Your task to perform on an android device: install app "Venmo" Image 0: 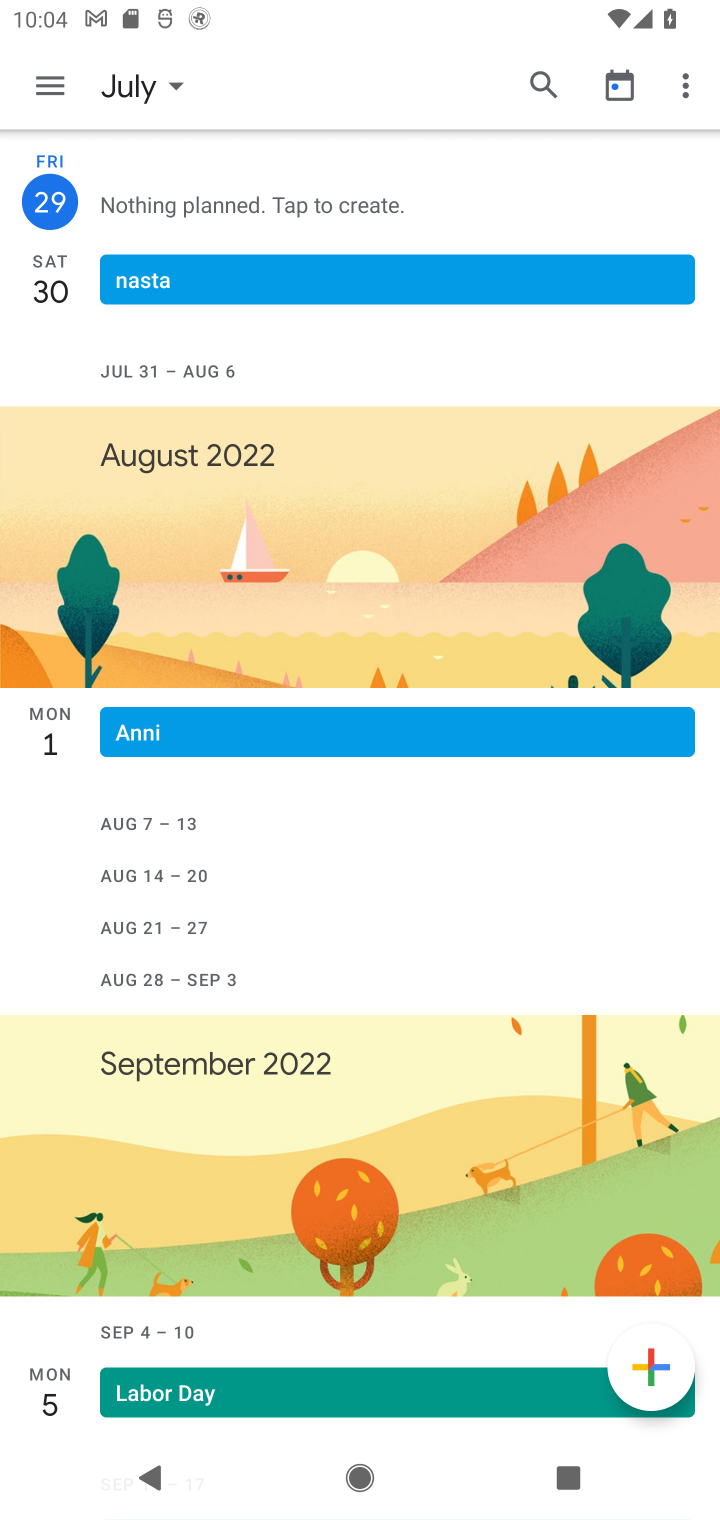
Step 0: press home button
Your task to perform on an android device: install app "Venmo" Image 1: 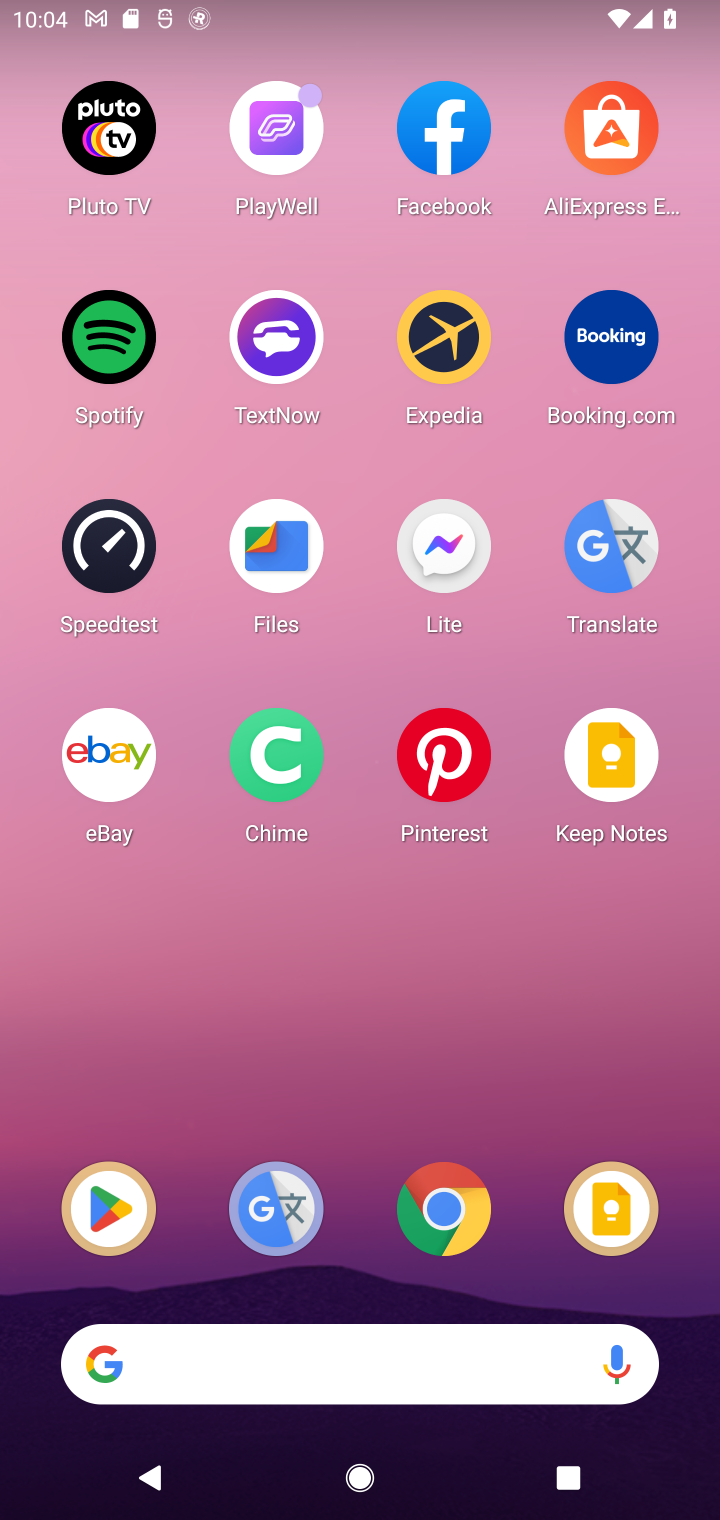
Step 1: drag from (297, 1363) to (458, 485)
Your task to perform on an android device: install app "Venmo" Image 2: 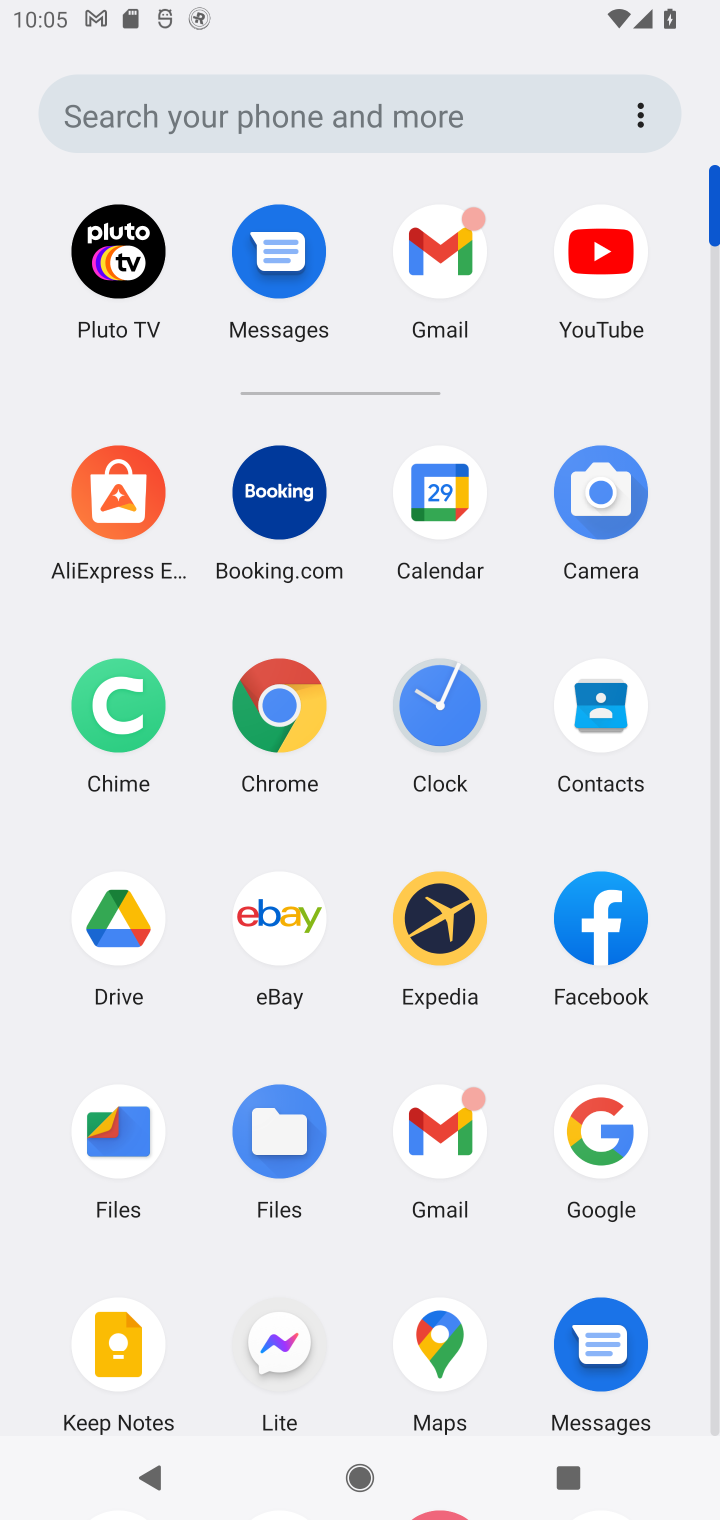
Step 2: drag from (335, 1397) to (364, 679)
Your task to perform on an android device: install app "Venmo" Image 3: 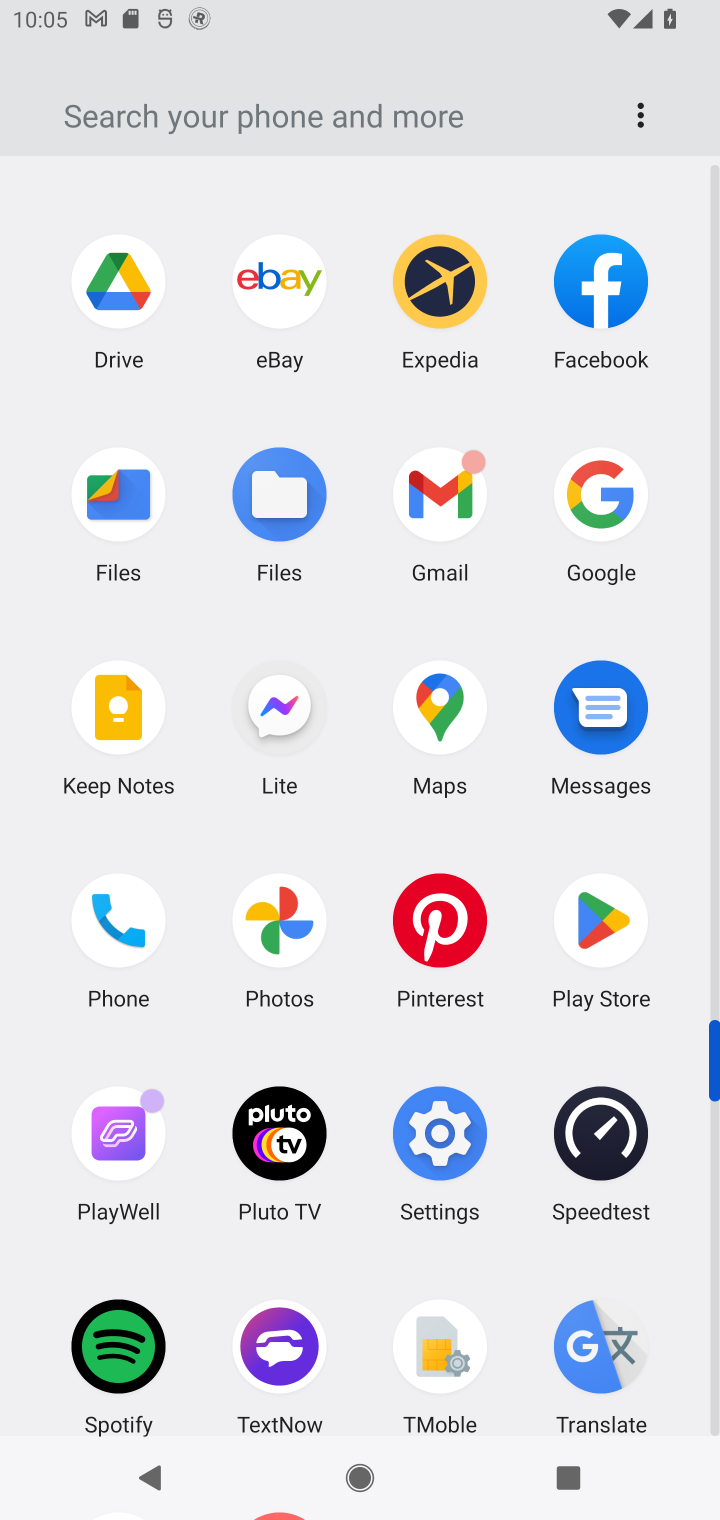
Step 3: click (601, 929)
Your task to perform on an android device: install app "Venmo" Image 4: 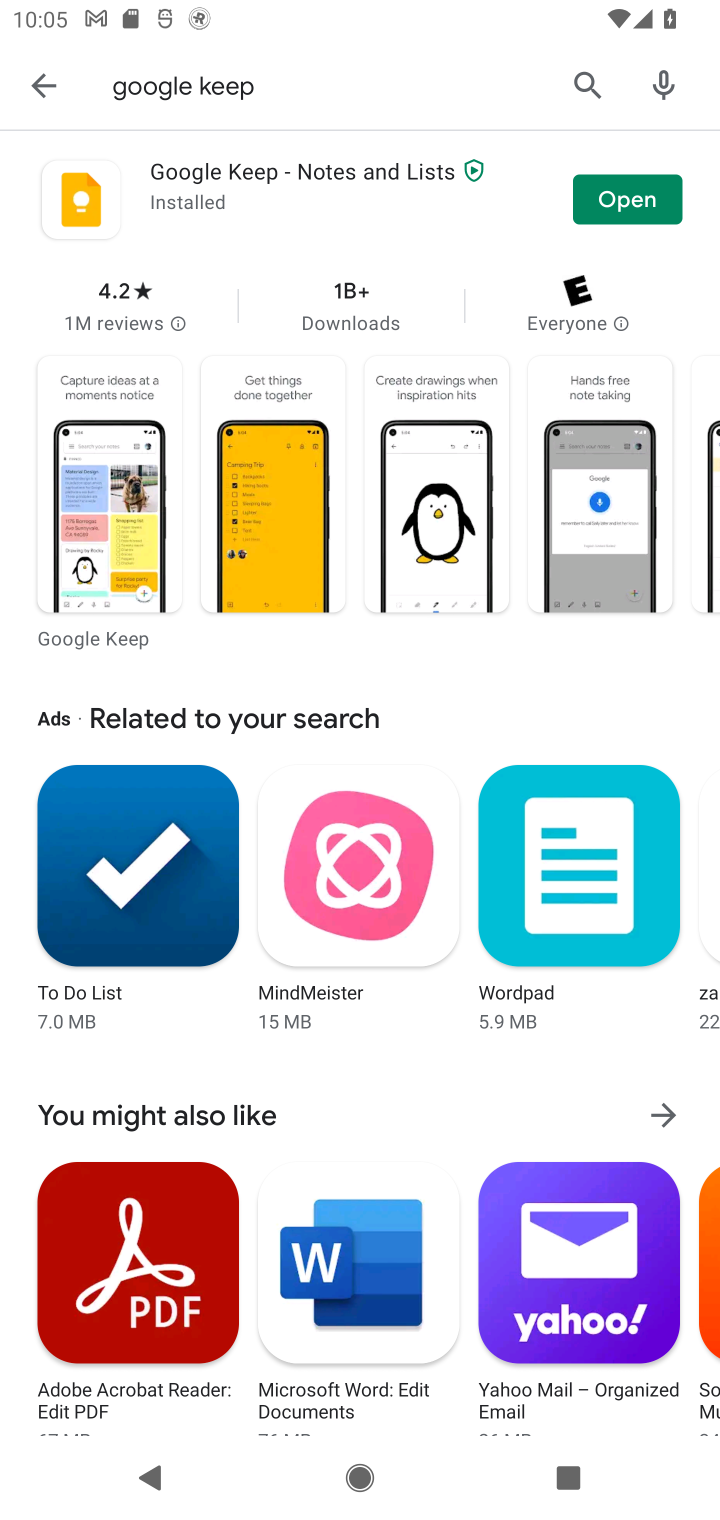
Step 4: click (583, 83)
Your task to perform on an android device: install app "Venmo" Image 5: 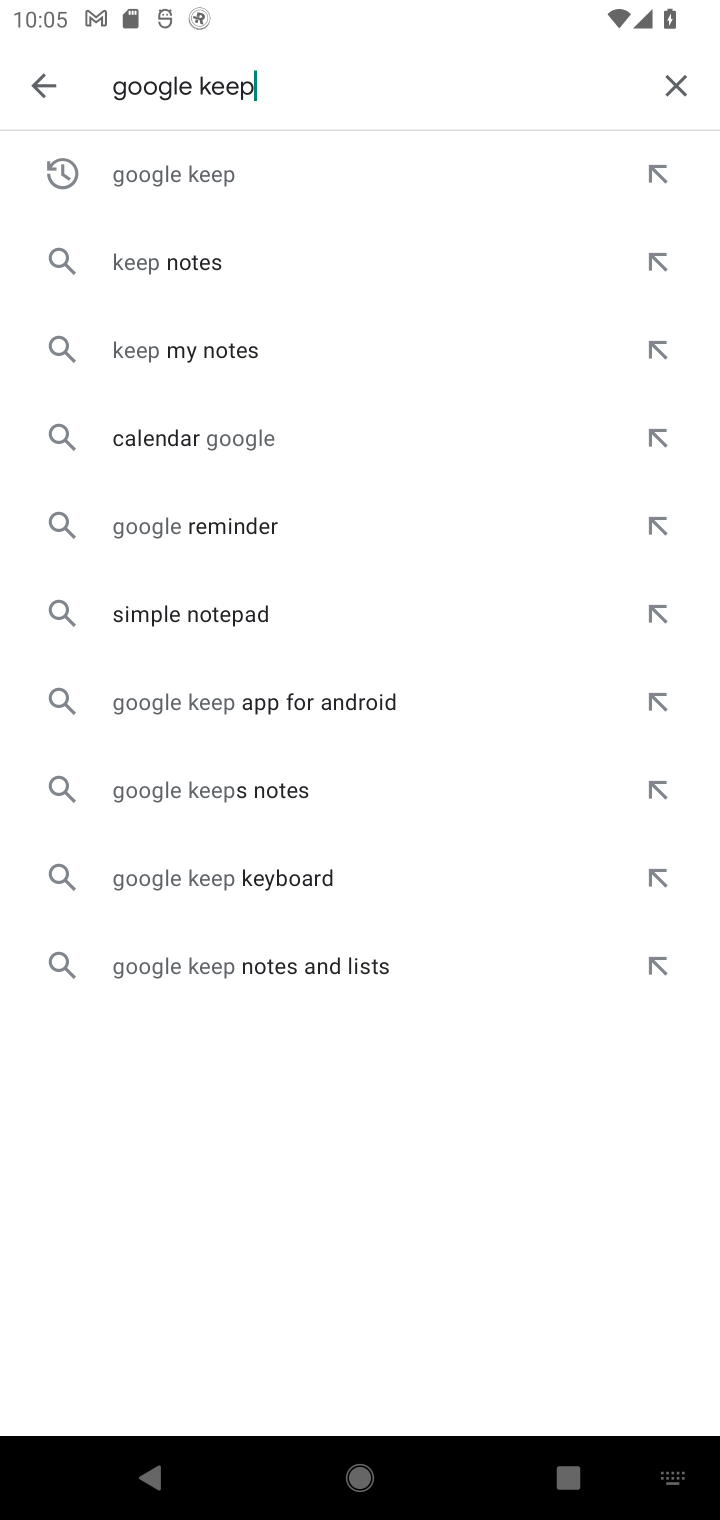
Step 5: click (676, 85)
Your task to perform on an android device: install app "Venmo" Image 6: 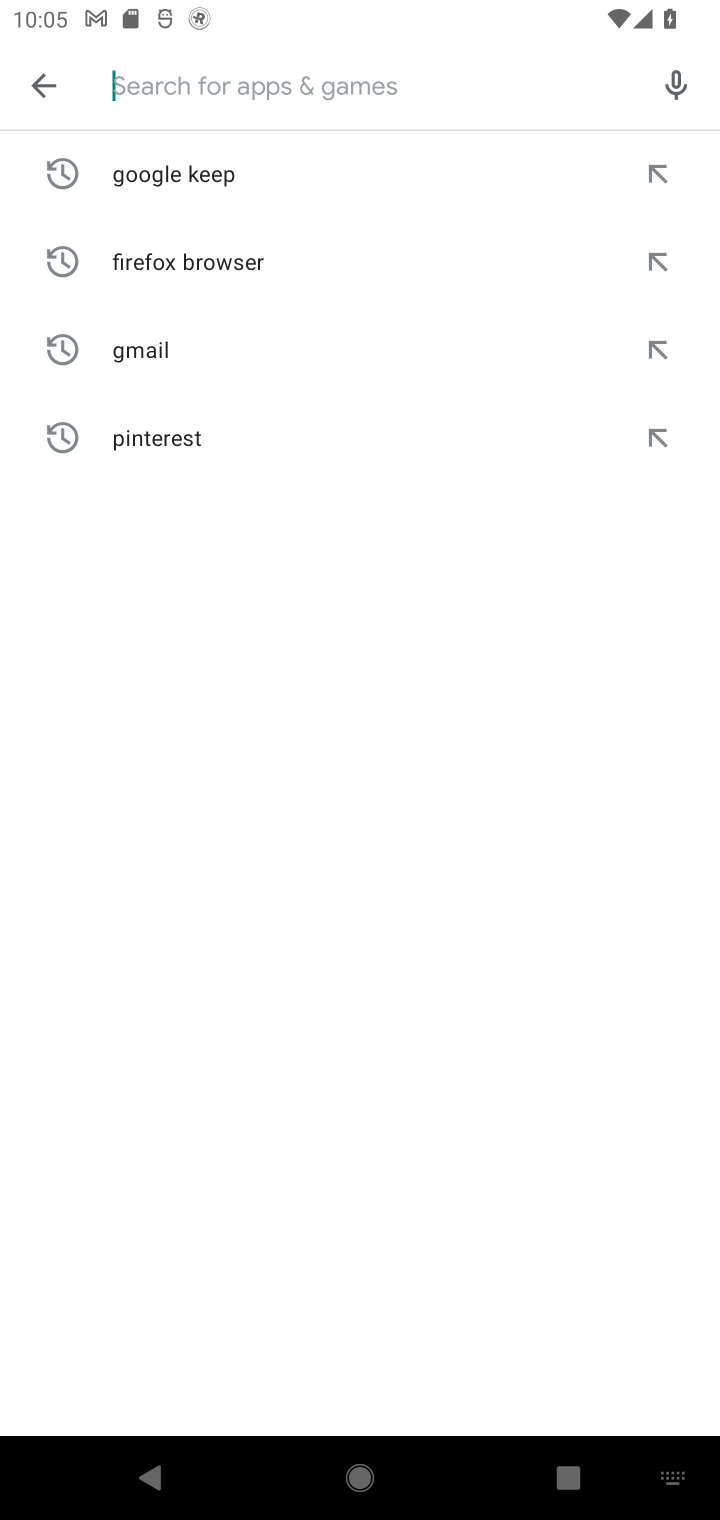
Step 6: type "Venmo"
Your task to perform on an android device: install app "Venmo" Image 7: 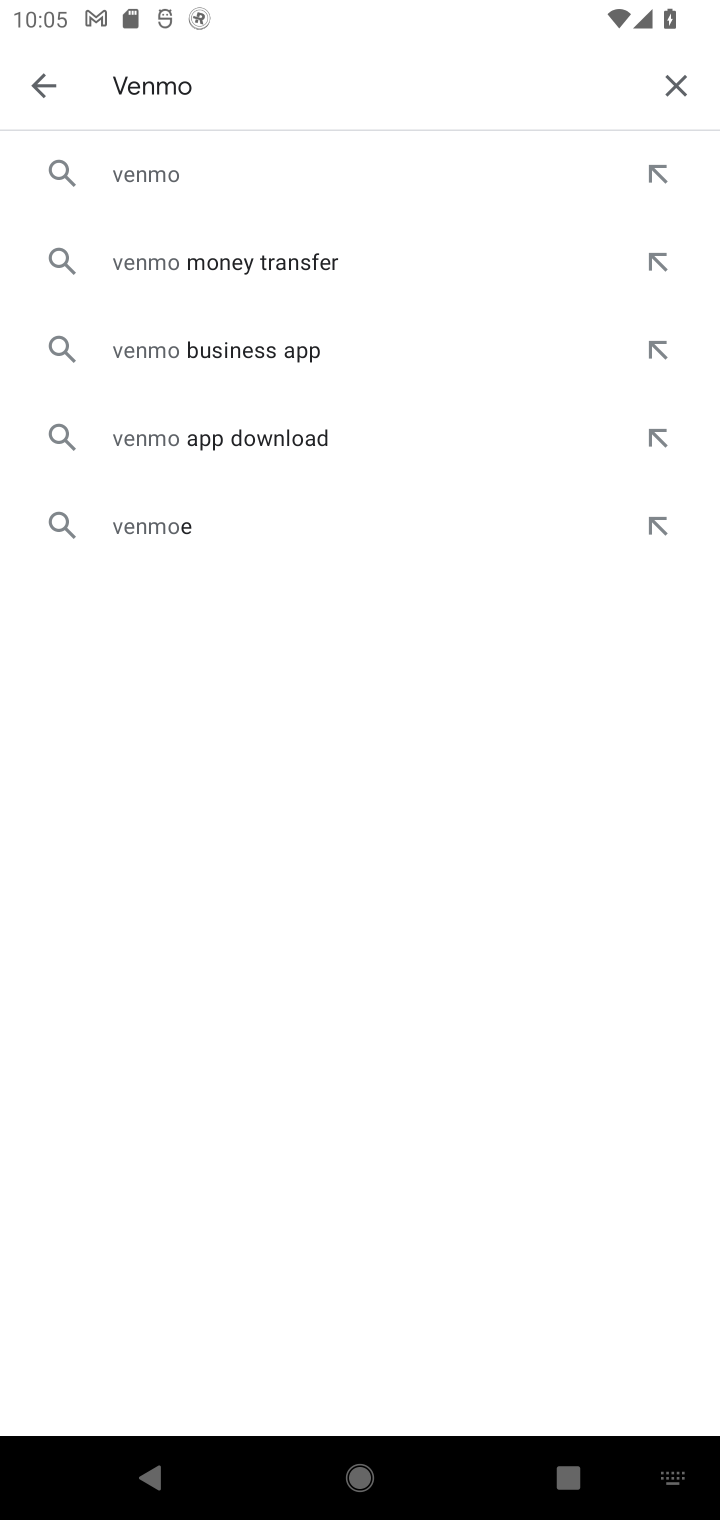
Step 7: click (186, 174)
Your task to perform on an android device: install app "Venmo" Image 8: 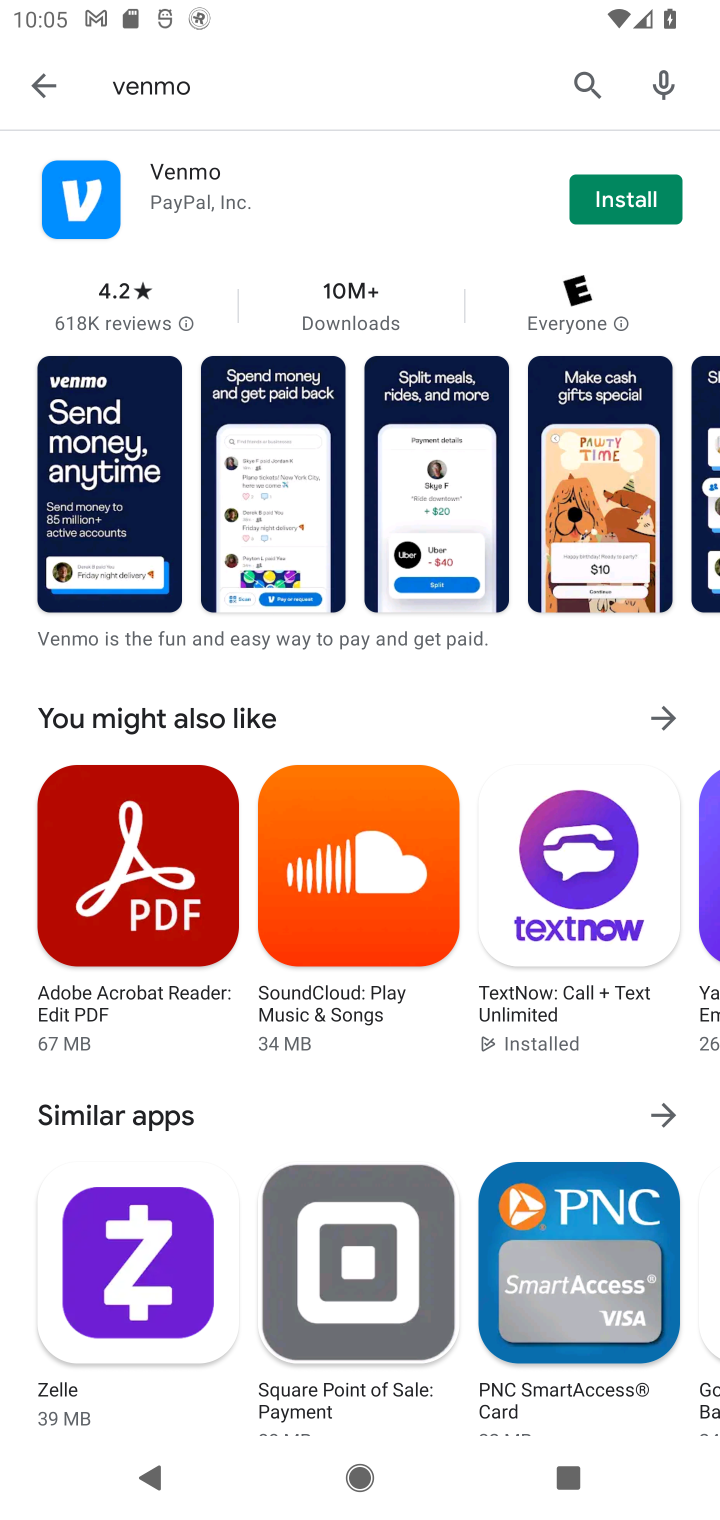
Step 8: click (622, 206)
Your task to perform on an android device: install app "Venmo" Image 9: 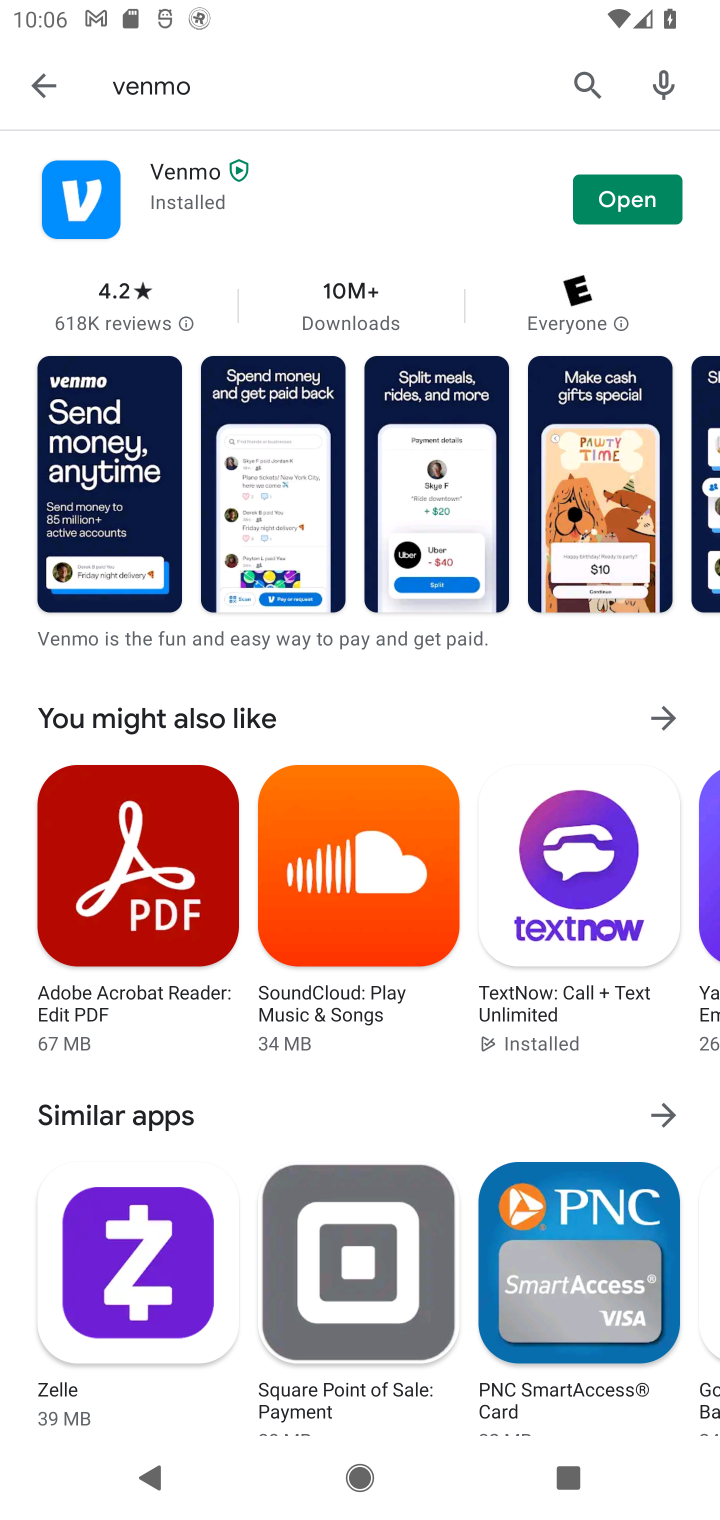
Step 9: task complete